Your task to perform on an android device: Open the calendar and show me this week's events? Image 0: 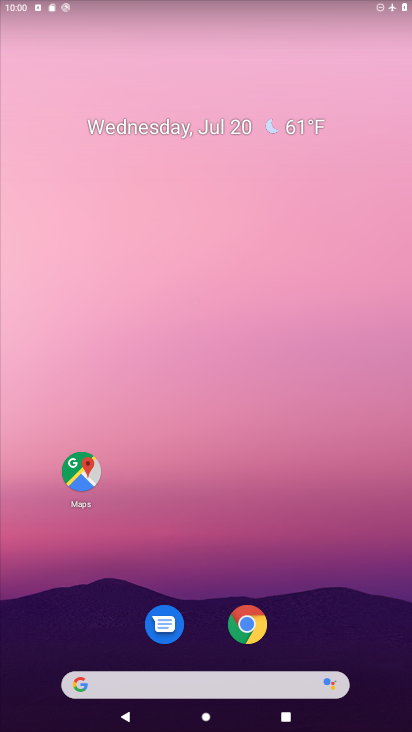
Step 0: drag from (212, 503) to (228, 172)
Your task to perform on an android device: Open the calendar and show me this week's events? Image 1: 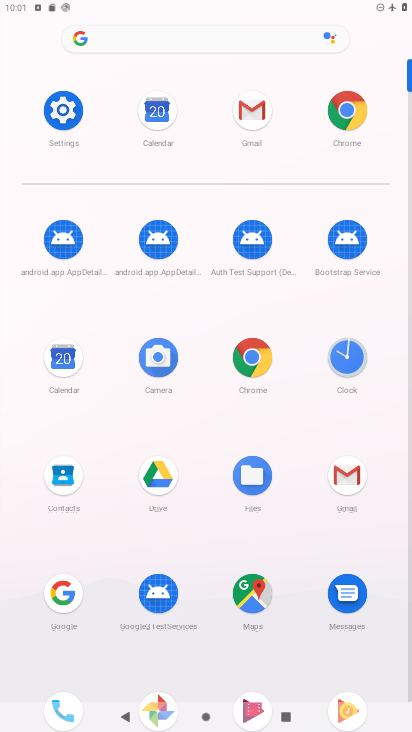
Step 1: click (167, 114)
Your task to perform on an android device: Open the calendar and show me this week's events? Image 2: 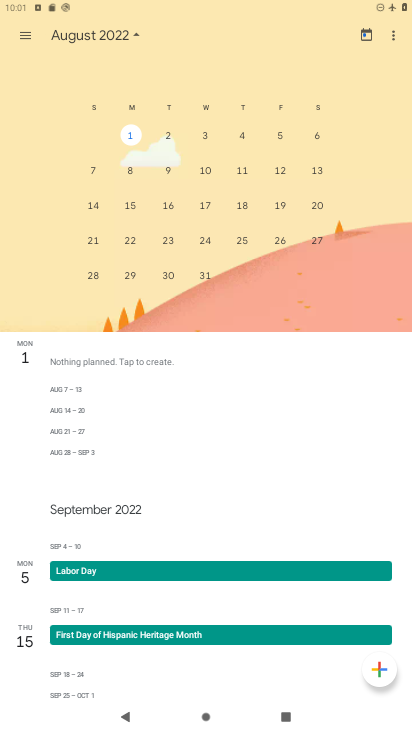
Step 2: task complete